Your task to perform on an android device: check out phone information Image 0: 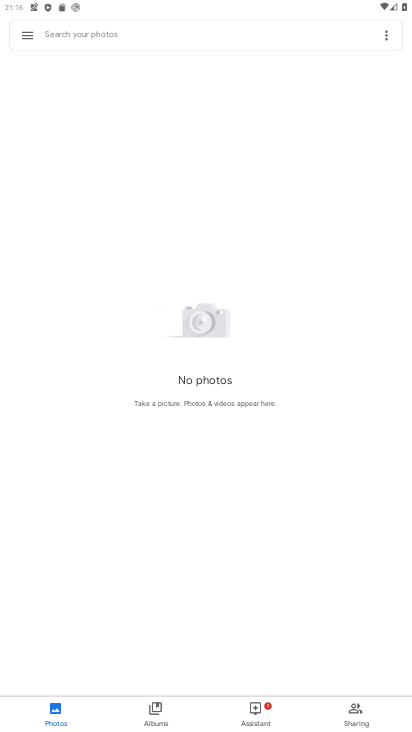
Step 0: press home button
Your task to perform on an android device: check out phone information Image 1: 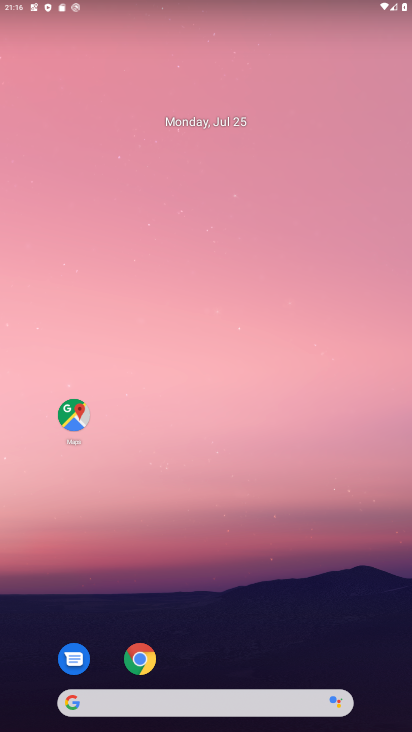
Step 1: drag from (233, 585) to (273, 244)
Your task to perform on an android device: check out phone information Image 2: 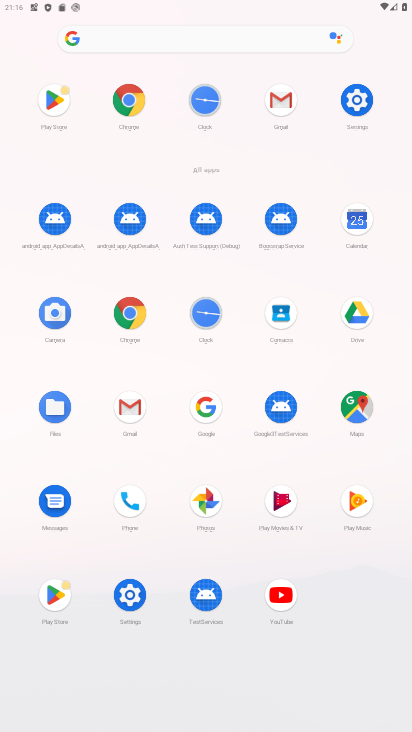
Step 2: click (364, 103)
Your task to perform on an android device: check out phone information Image 3: 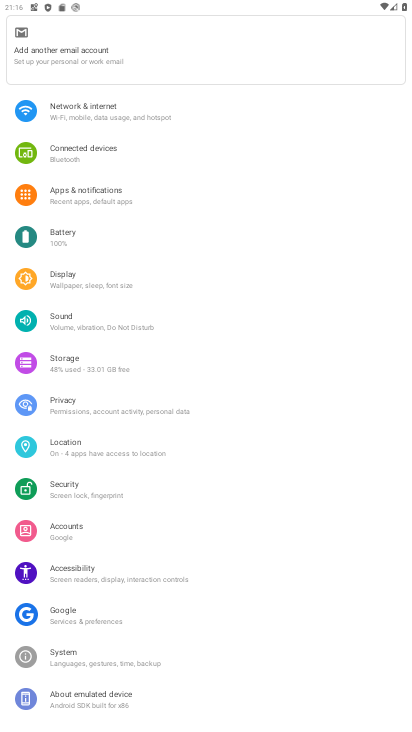
Step 3: drag from (184, 687) to (188, 293)
Your task to perform on an android device: check out phone information Image 4: 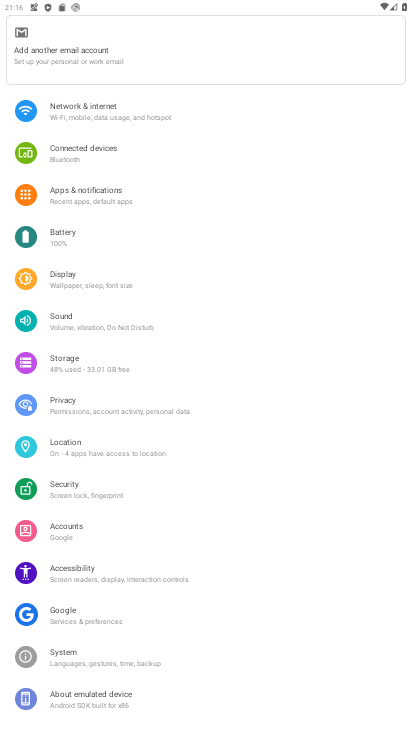
Step 4: click (89, 699)
Your task to perform on an android device: check out phone information Image 5: 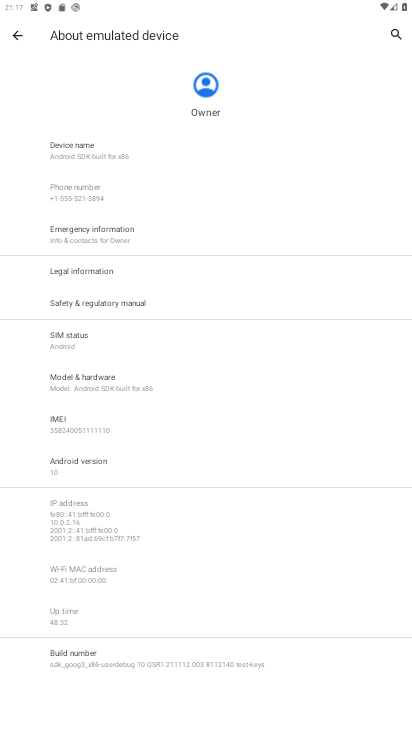
Step 5: task complete